Your task to perform on an android device: Open calendar and show me the fourth week of next month Image 0: 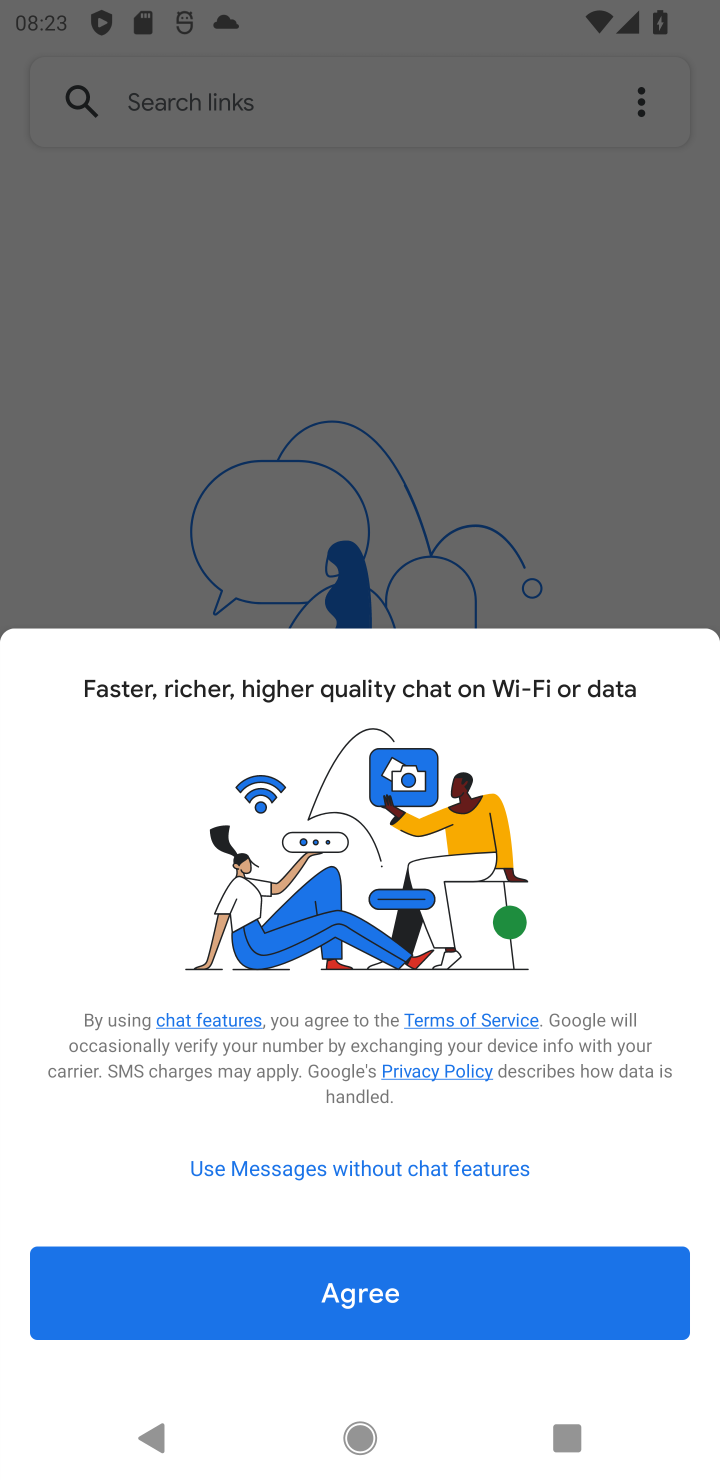
Step 0: press home button
Your task to perform on an android device: Open calendar and show me the fourth week of next month Image 1: 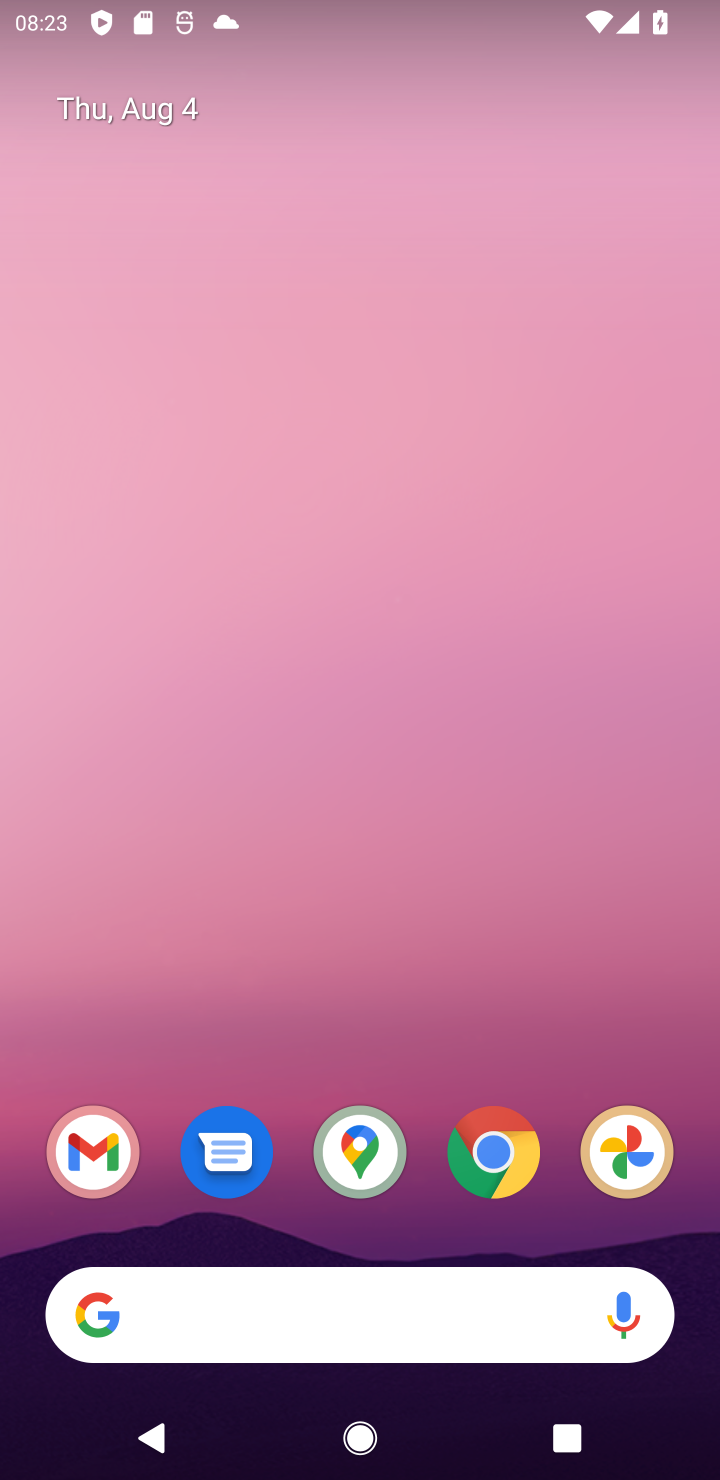
Step 1: drag from (129, 1050) to (437, 159)
Your task to perform on an android device: Open calendar and show me the fourth week of next month Image 2: 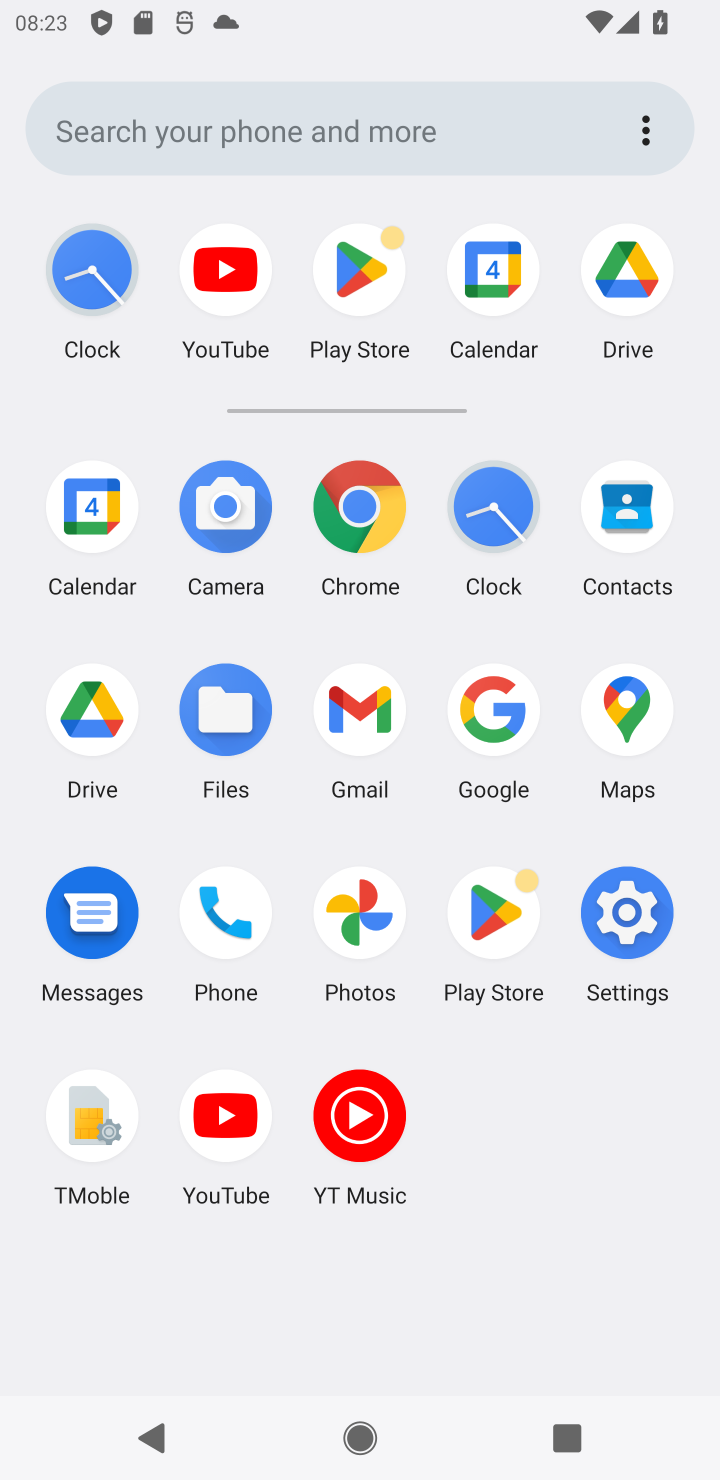
Step 2: click (103, 505)
Your task to perform on an android device: Open calendar and show me the fourth week of next month Image 3: 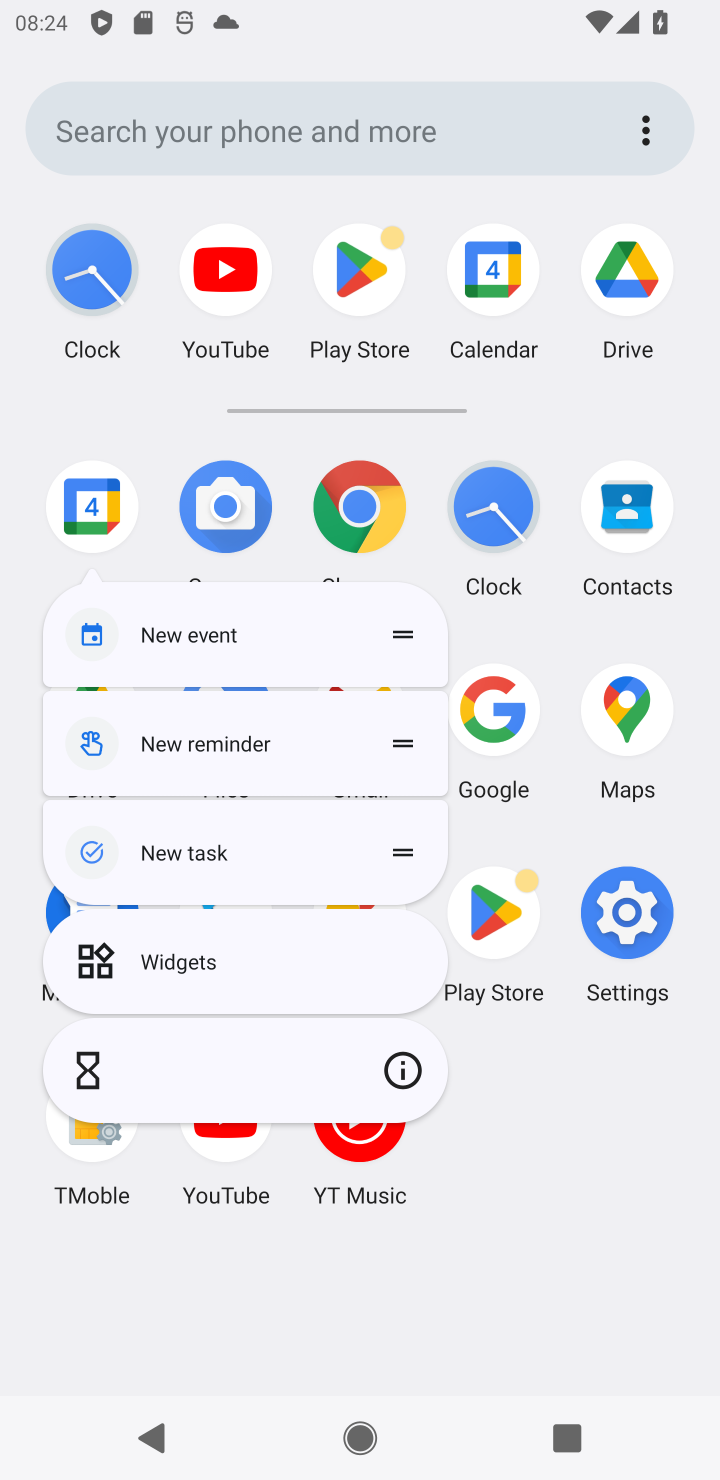
Step 3: click (87, 512)
Your task to perform on an android device: Open calendar and show me the fourth week of next month Image 4: 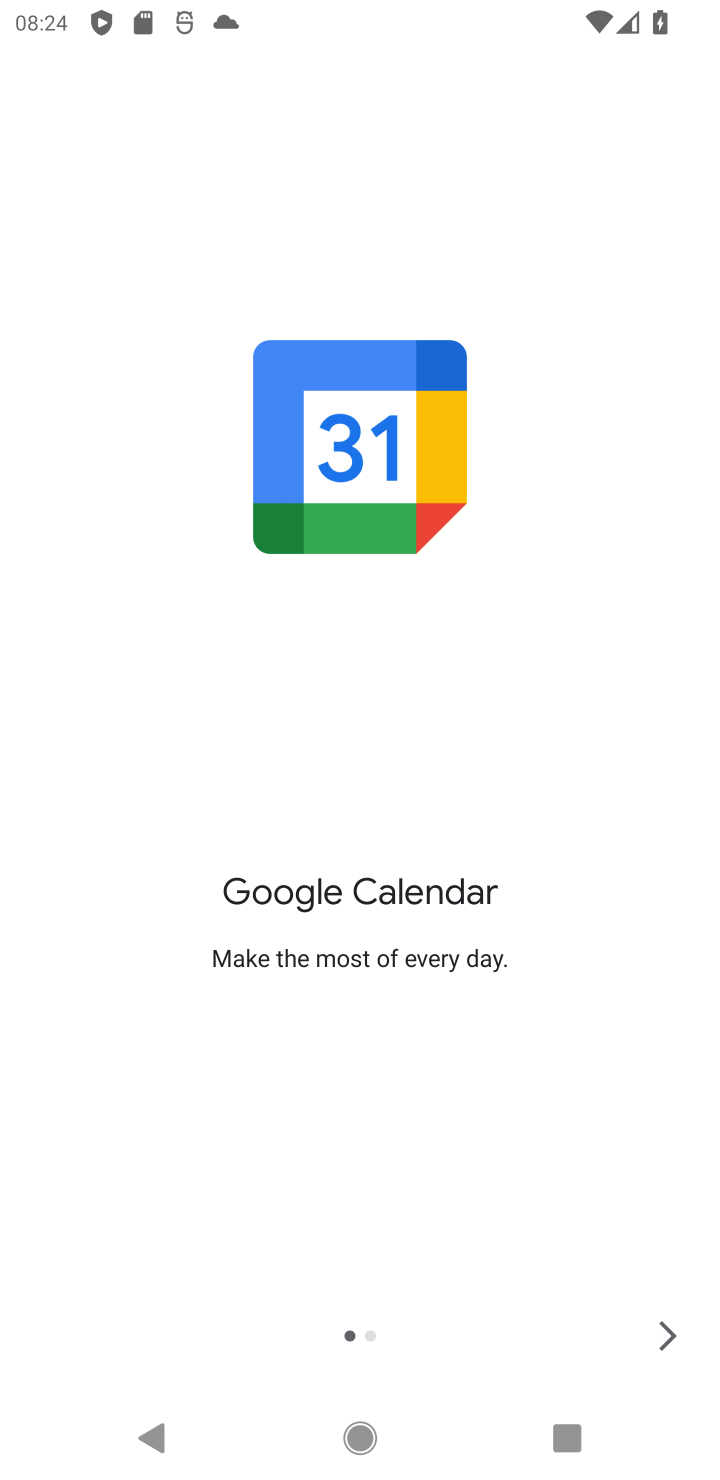
Step 4: click (670, 1333)
Your task to perform on an android device: Open calendar and show me the fourth week of next month Image 5: 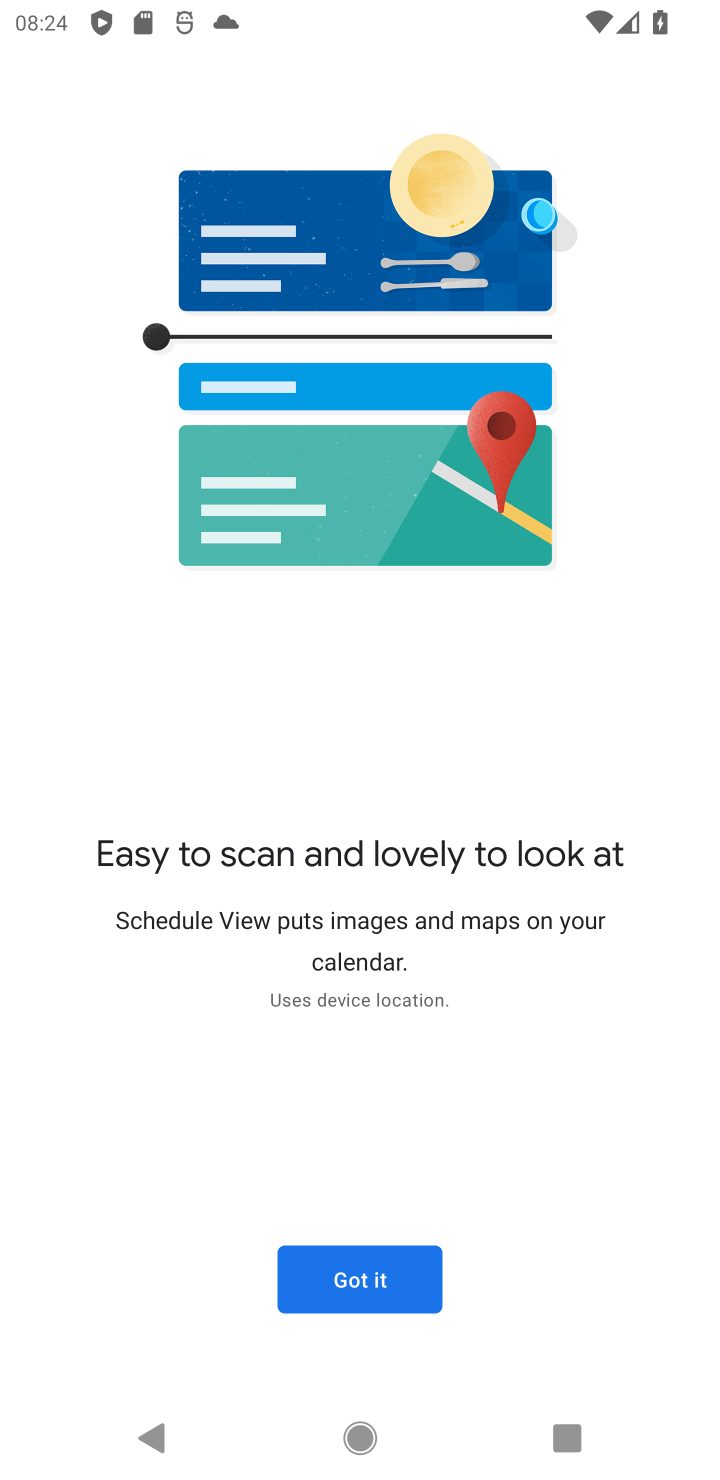
Step 5: click (327, 1293)
Your task to perform on an android device: Open calendar and show me the fourth week of next month Image 6: 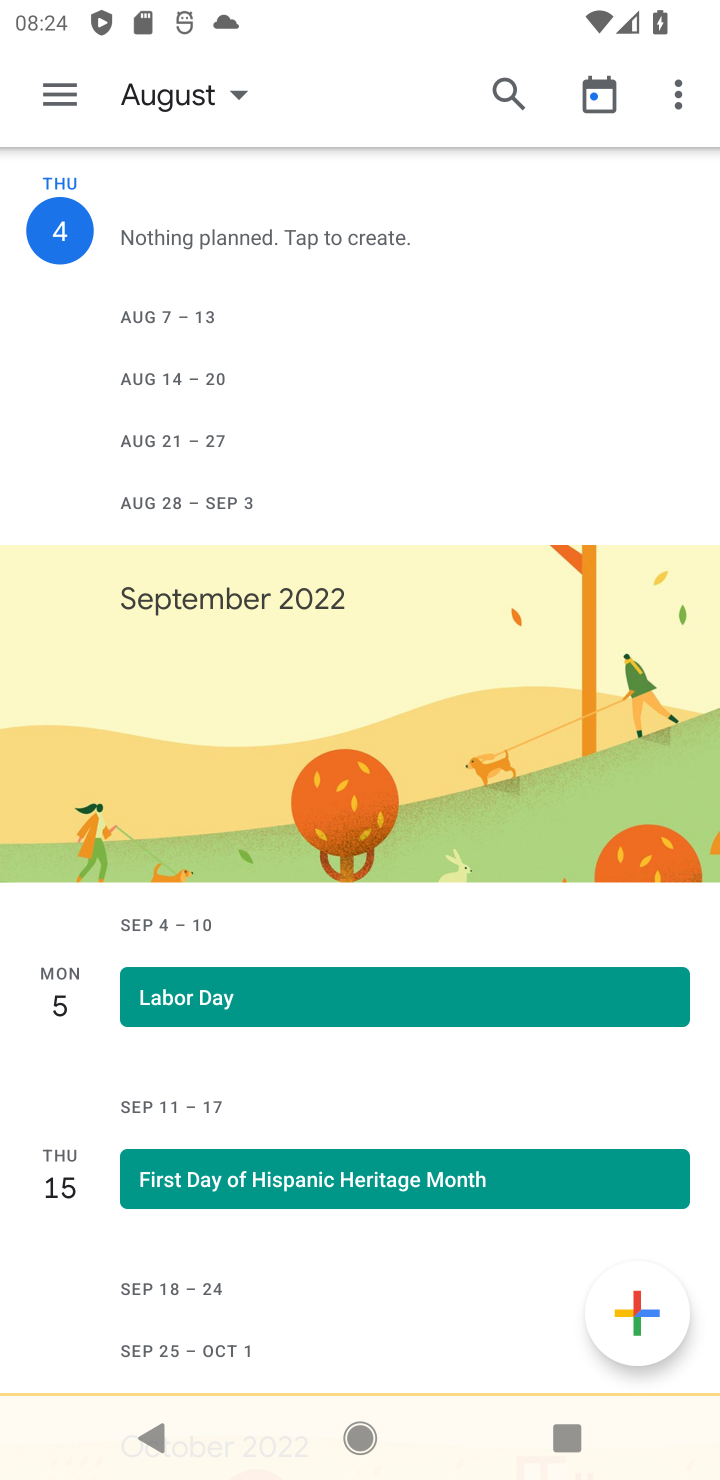
Step 6: click (231, 88)
Your task to perform on an android device: Open calendar and show me the fourth week of next month Image 7: 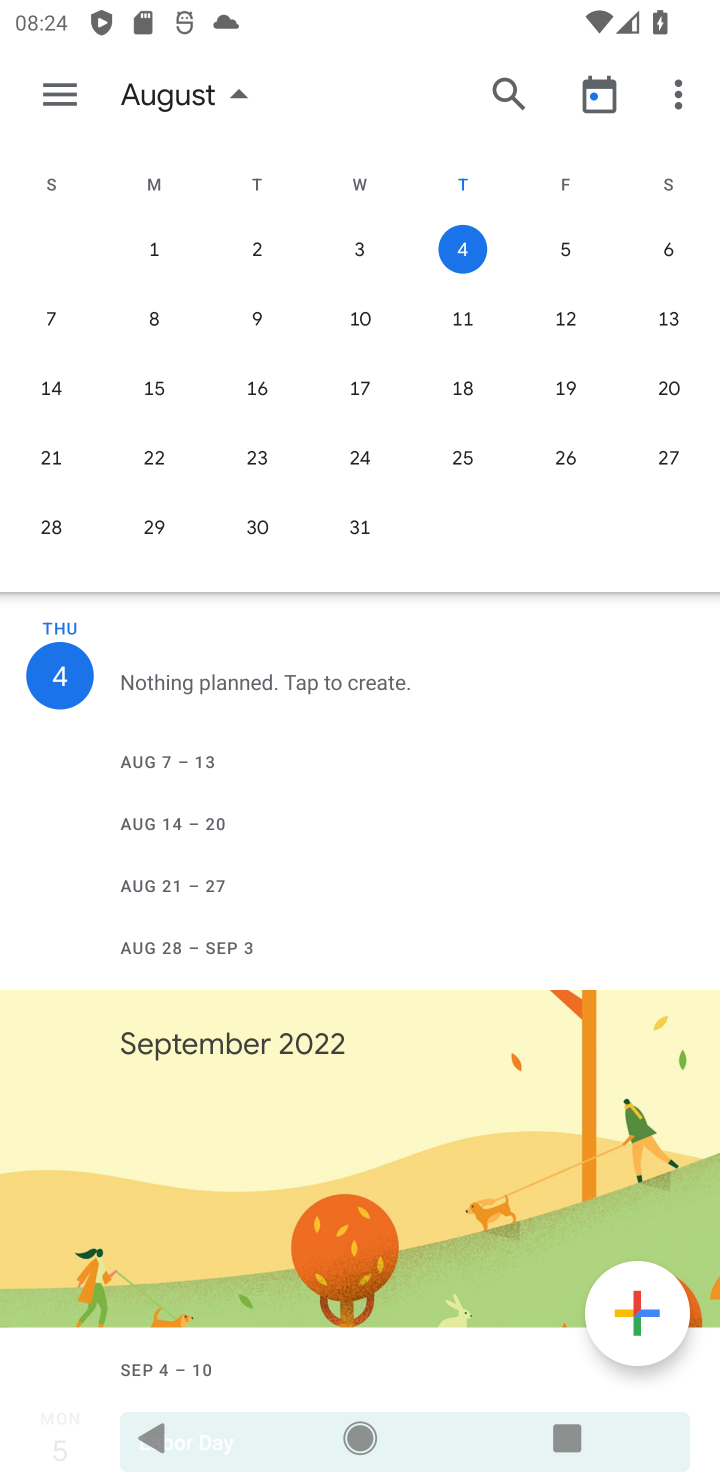
Step 7: drag from (541, 320) to (15, 580)
Your task to perform on an android device: Open calendar and show me the fourth week of next month Image 8: 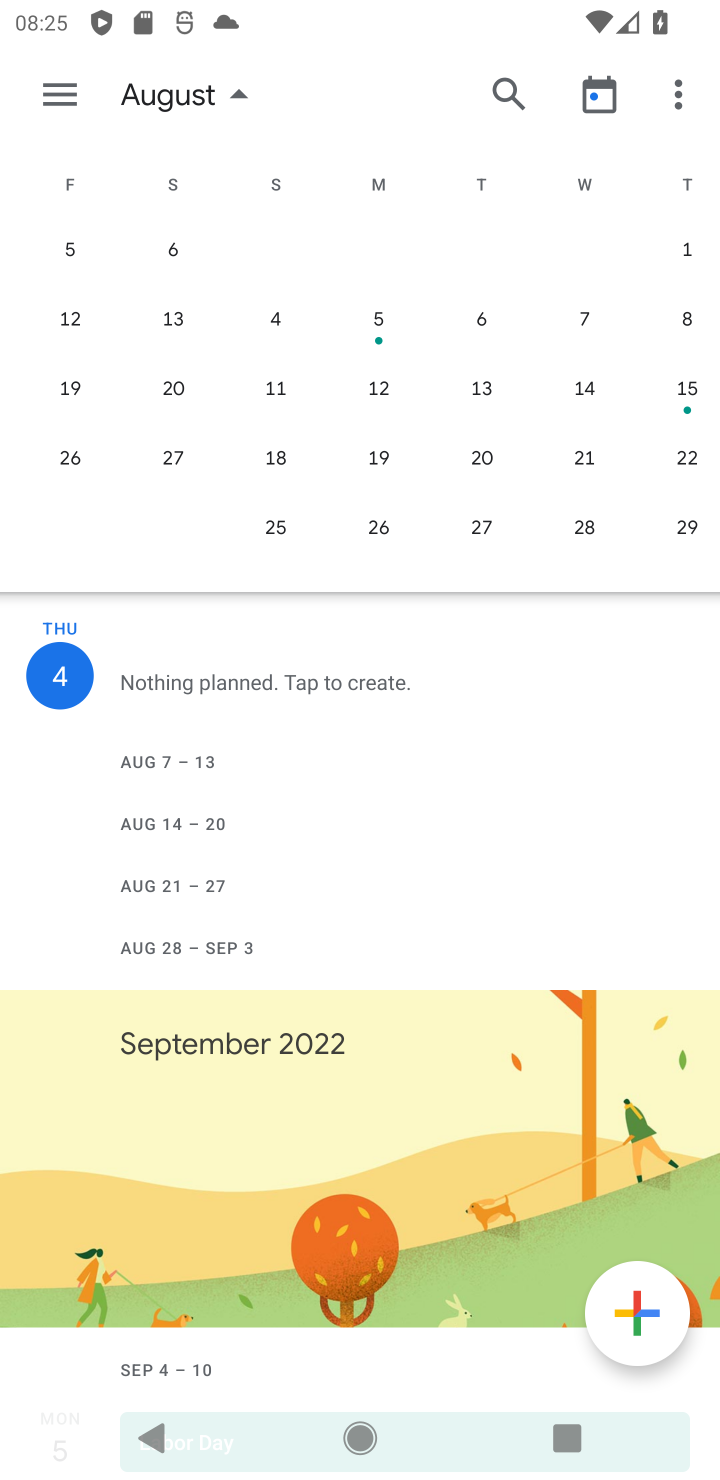
Step 8: drag from (550, 362) to (10, 438)
Your task to perform on an android device: Open calendar and show me the fourth week of next month Image 9: 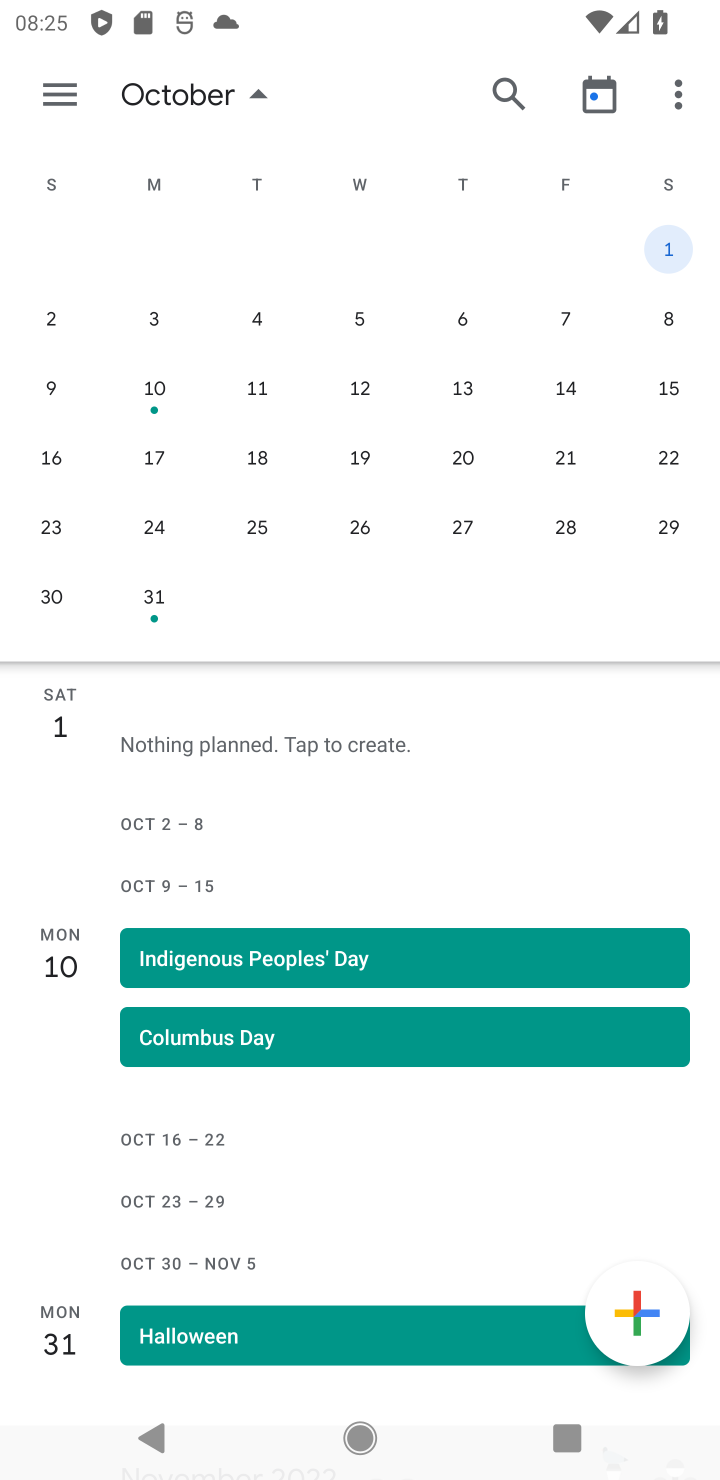
Step 9: drag from (49, 290) to (713, 391)
Your task to perform on an android device: Open calendar and show me the fourth week of next month Image 10: 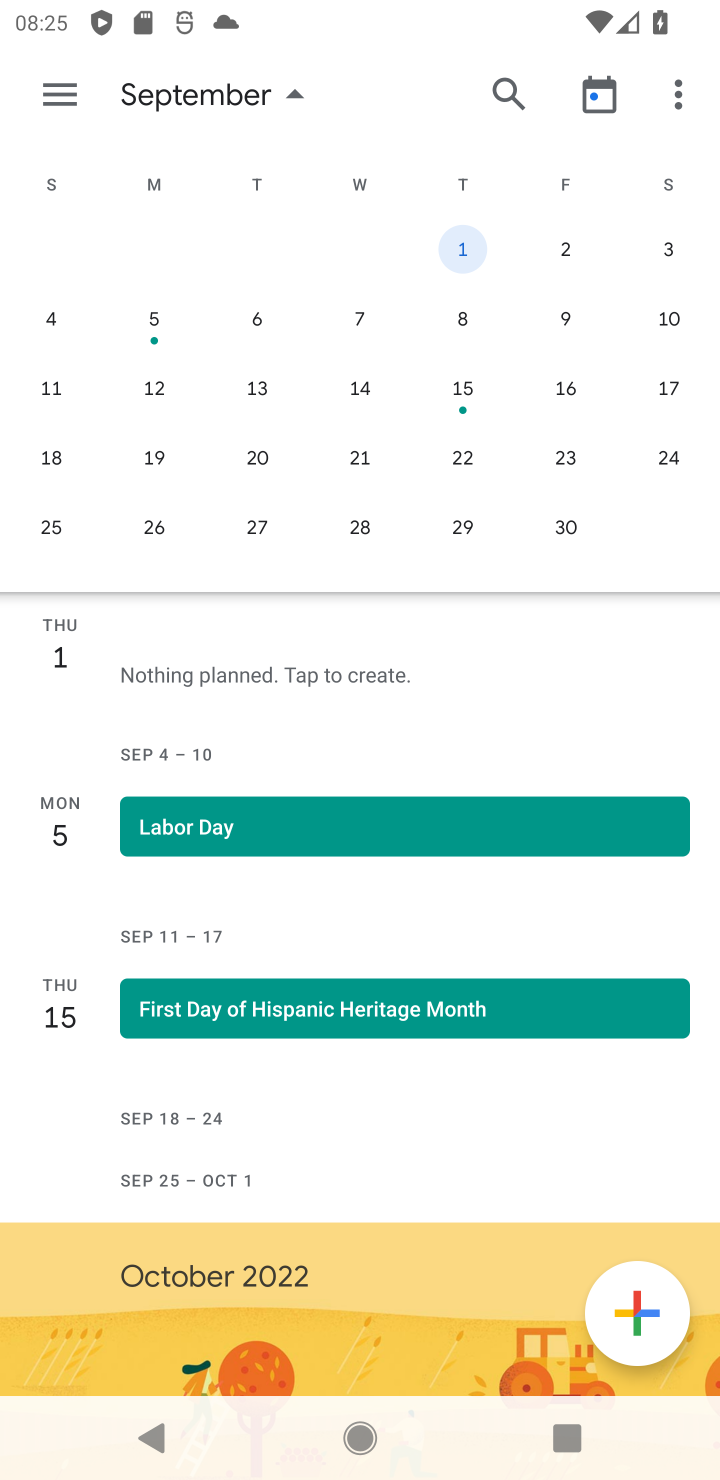
Step 10: click (577, 245)
Your task to perform on an android device: Open calendar and show me the fourth week of next month Image 11: 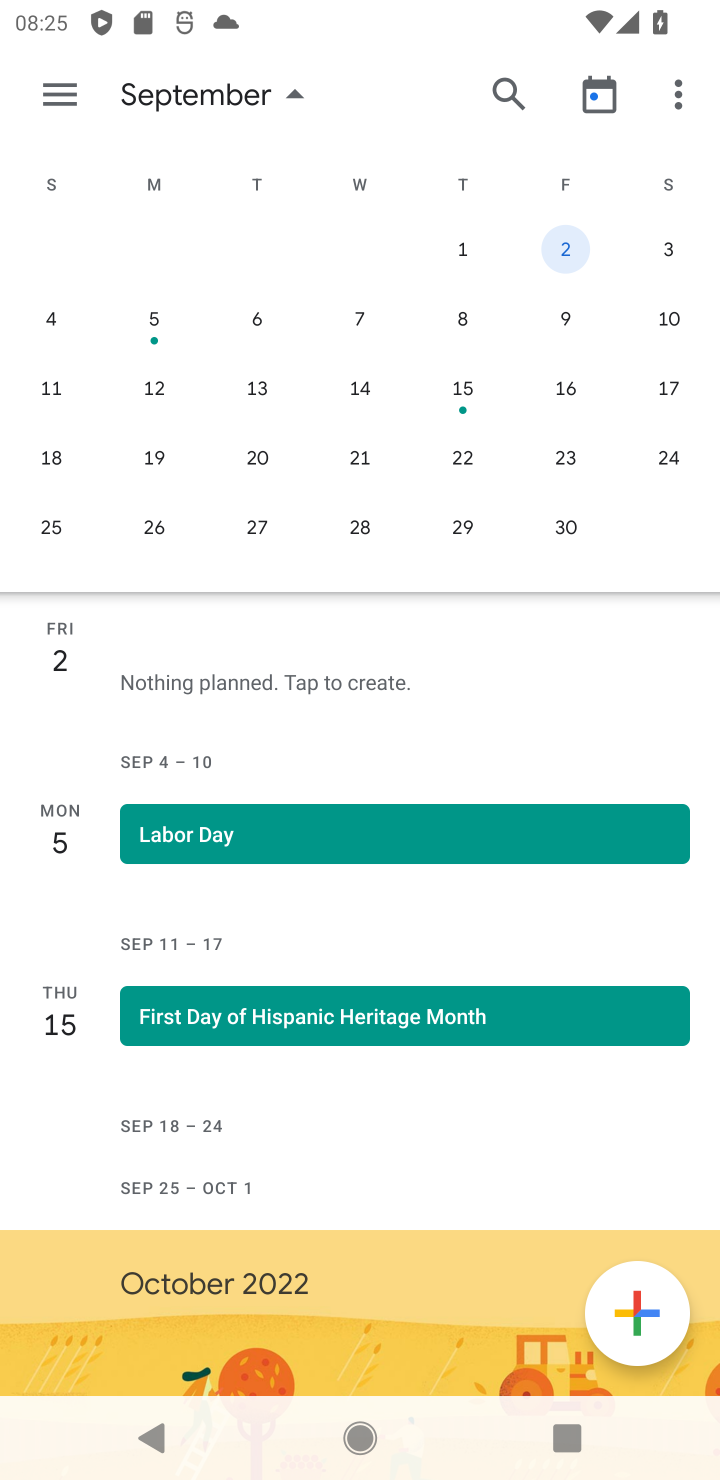
Step 11: task complete